Your task to perform on an android device: Go to network settings Image 0: 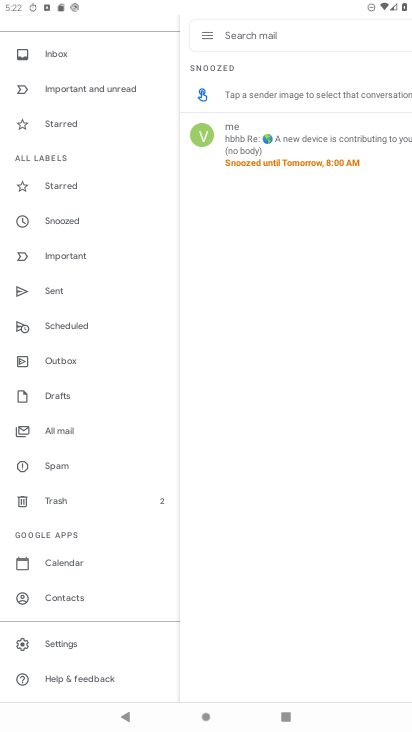
Step 0: press home button
Your task to perform on an android device: Go to network settings Image 1: 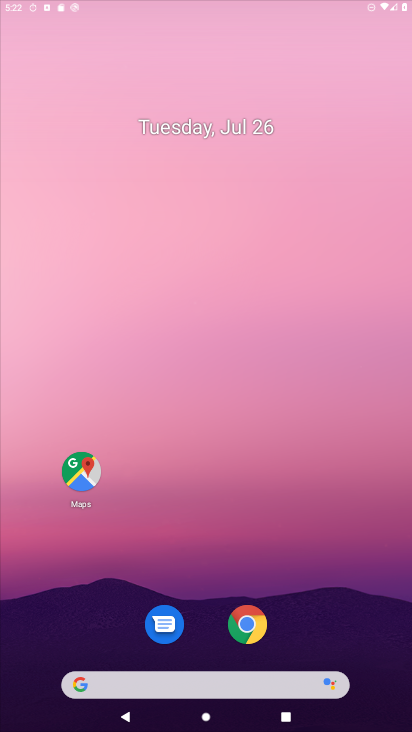
Step 1: drag from (148, 669) to (176, 6)
Your task to perform on an android device: Go to network settings Image 2: 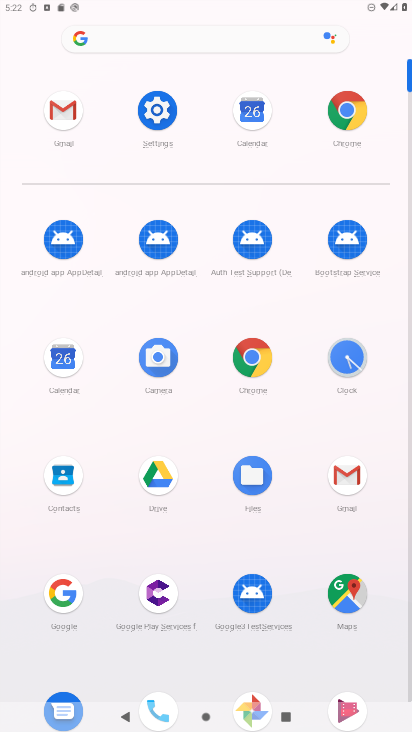
Step 2: click (138, 107)
Your task to perform on an android device: Go to network settings Image 3: 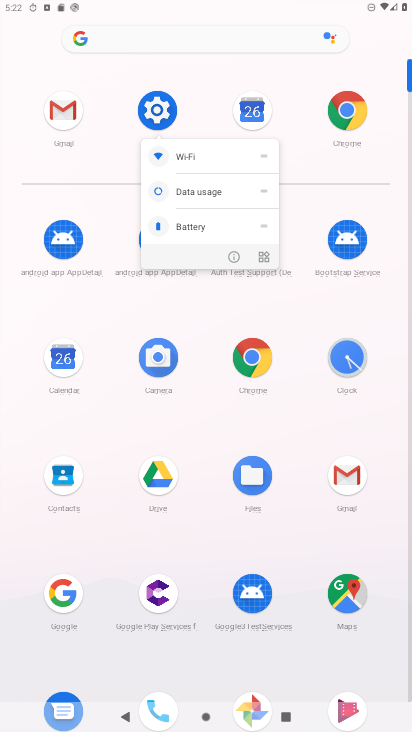
Step 3: click (147, 109)
Your task to perform on an android device: Go to network settings Image 4: 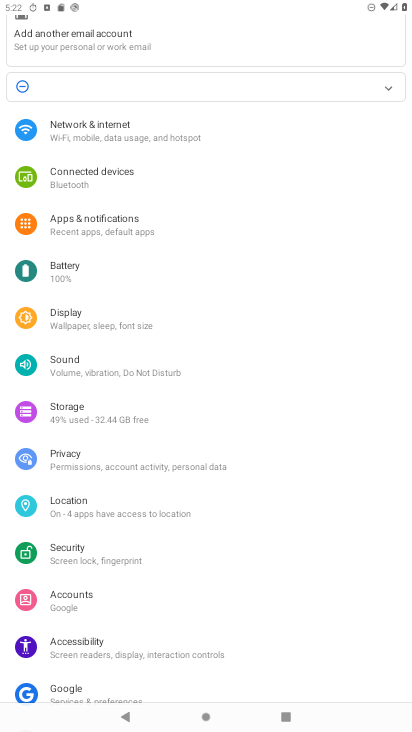
Step 4: click (143, 127)
Your task to perform on an android device: Go to network settings Image 5: 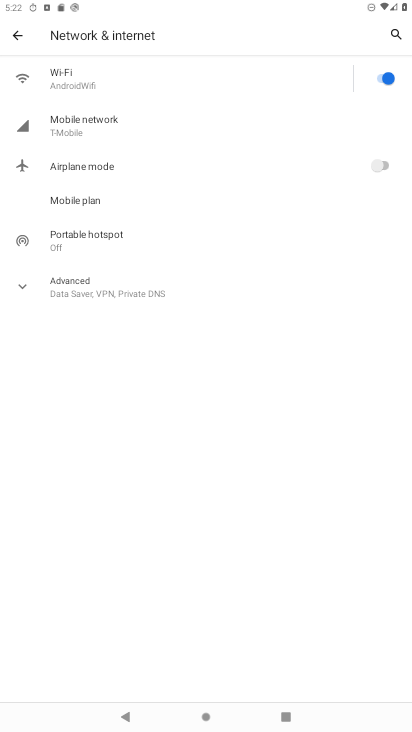
Step 5: task complete